Your task to perform on an android device: open app "Pluto TV - Live TV and Movies" (install if not already installed), go to login, and select forgot password Image 0: 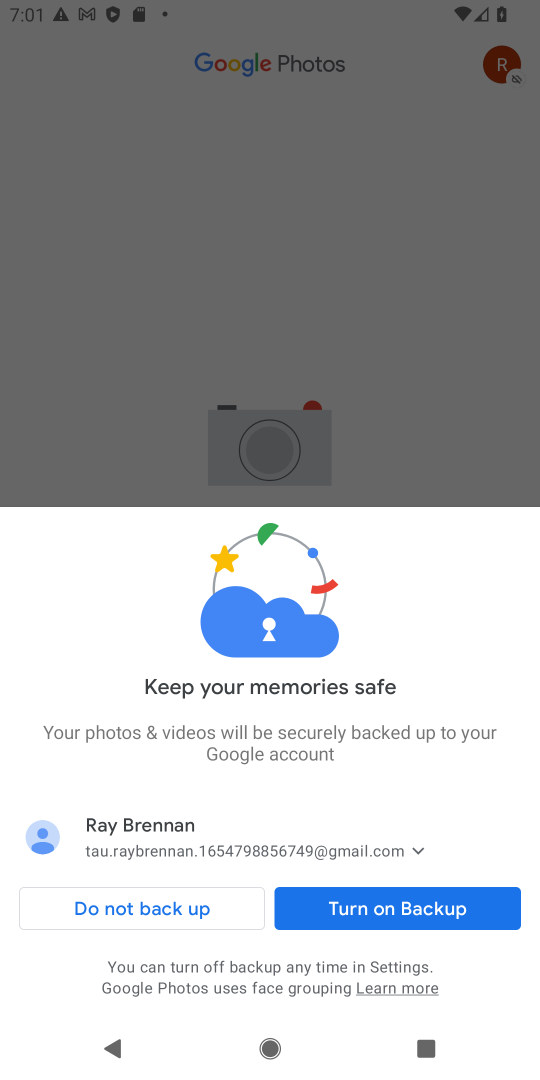
Step 0: press home button
Your task to perform on an android device: open app "Pluto TV - Live TV and Movies" (install if not already installed), go to login, and select forgot password Image 1: 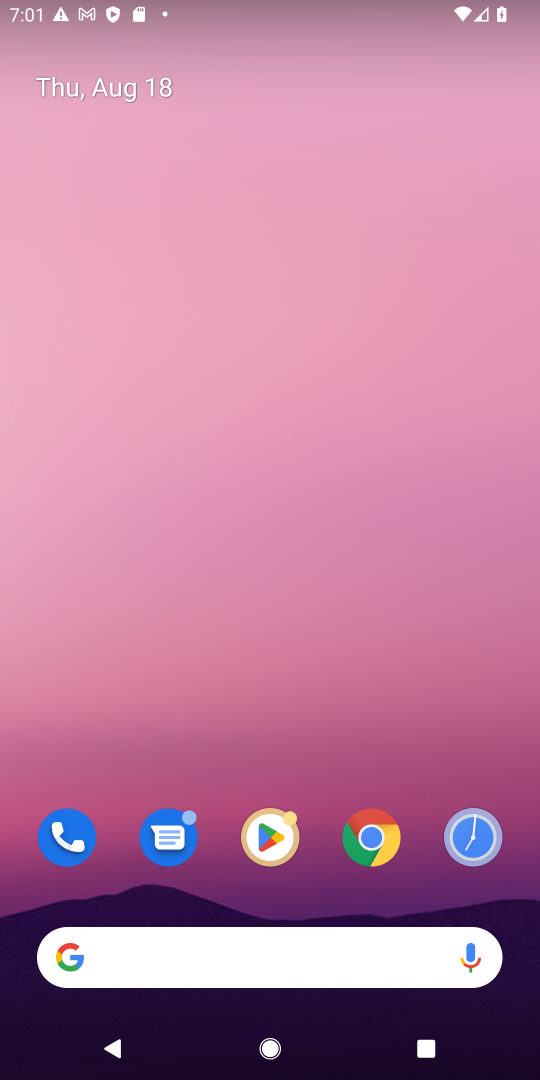
Step 1: click (269, 828)
Your task to perform on an android device: open app "Pluto TV - Live TV and Movies" (install if not already installed), go to login, and select forgot password Image 2: 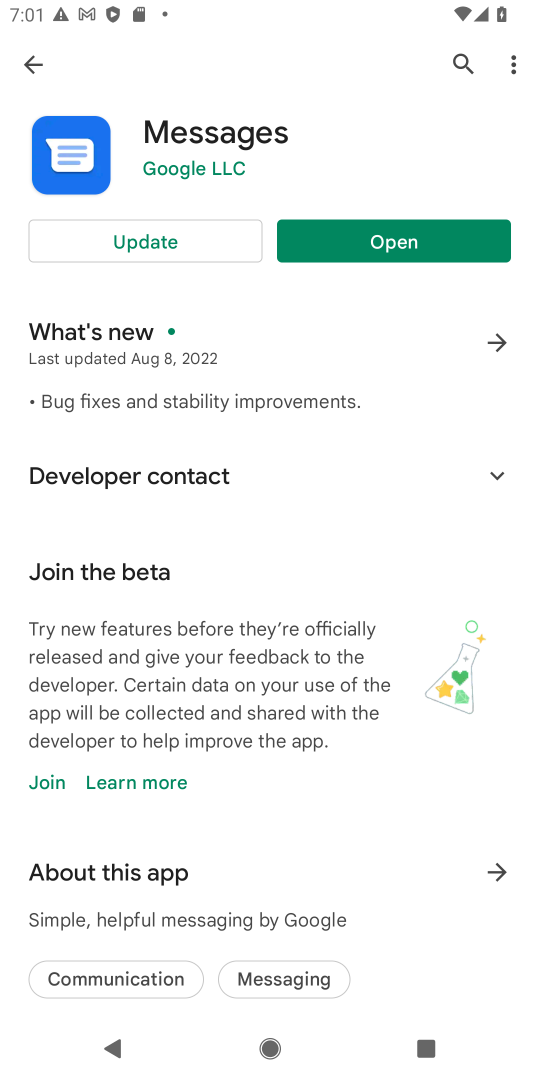
Step 2: click (36, 61)
Your task to perform on an android device: open app "Pluto TV - Live TV and Movies" (install if not already installed), go to login, and select forgot password Image 3: 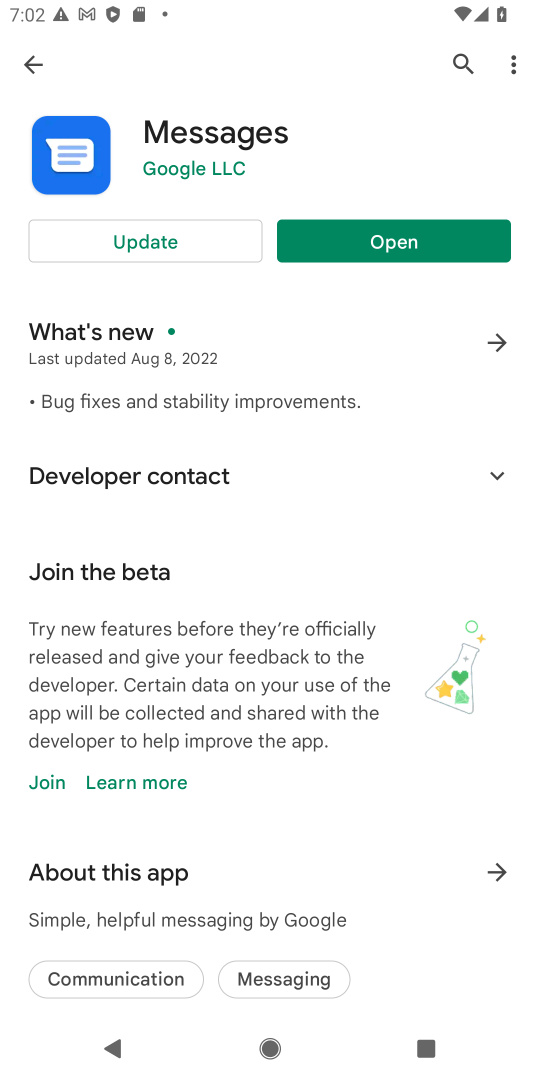
Step 3: click (30, 62)
Your task to perform on an android device: open app "Pluto TV - Live TV and Movies" (install if not already installed), go to login, and select forgot password Image 4: 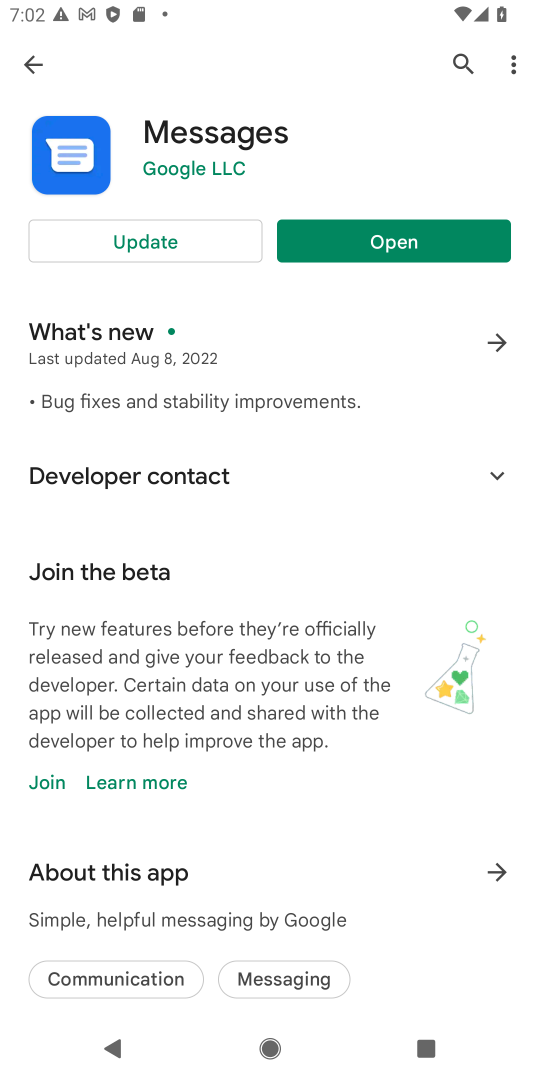
Step 4: click (32, 76)
Your task to perform on an android device: open app "Pluto TV - Live TV and Movies" (install if not already installed), go to login, and select forgot password Image 5: 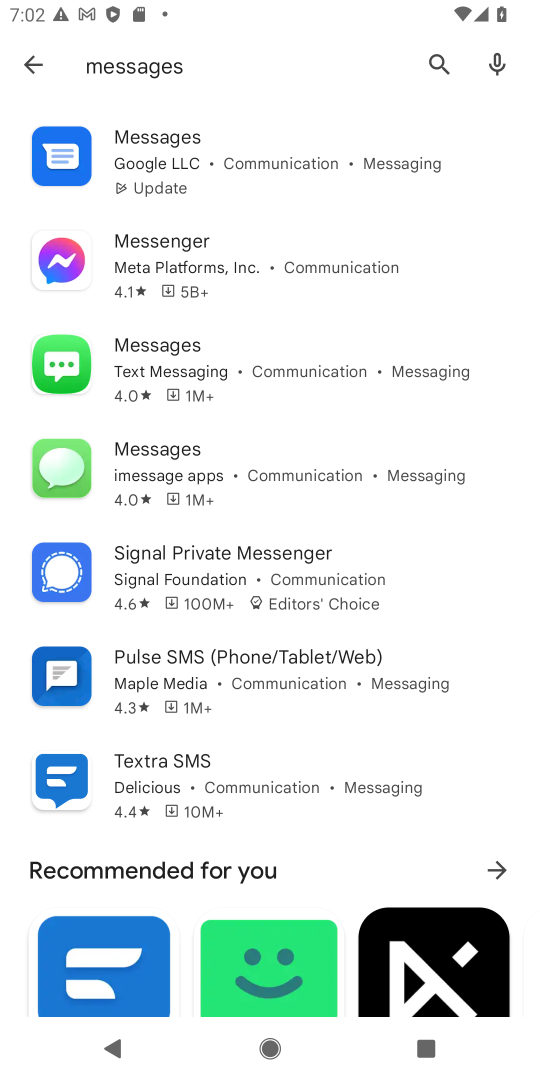
Step 5: click (150, 67)
Your task to perform on an android device: open app "Pluto TV - Live TV and Movies" (install if not already installed), go to login, and select forgot password Image 6: 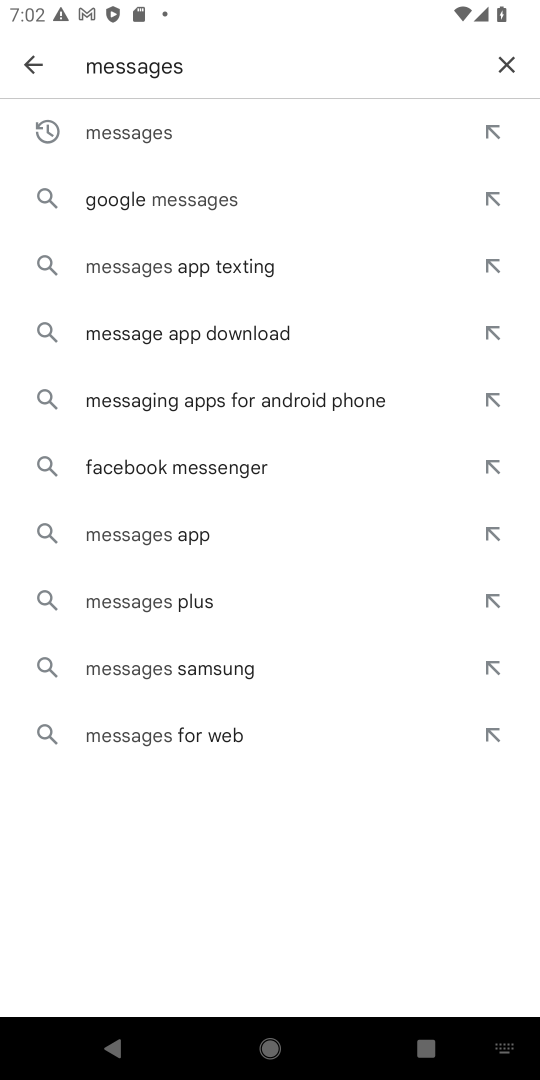
Step 6: click (512, 54)
Your task to perform on an android device: open app "Pluto TV - Live TV and Movies" (install if not already installed), go to login, and select forgot password Image 7: 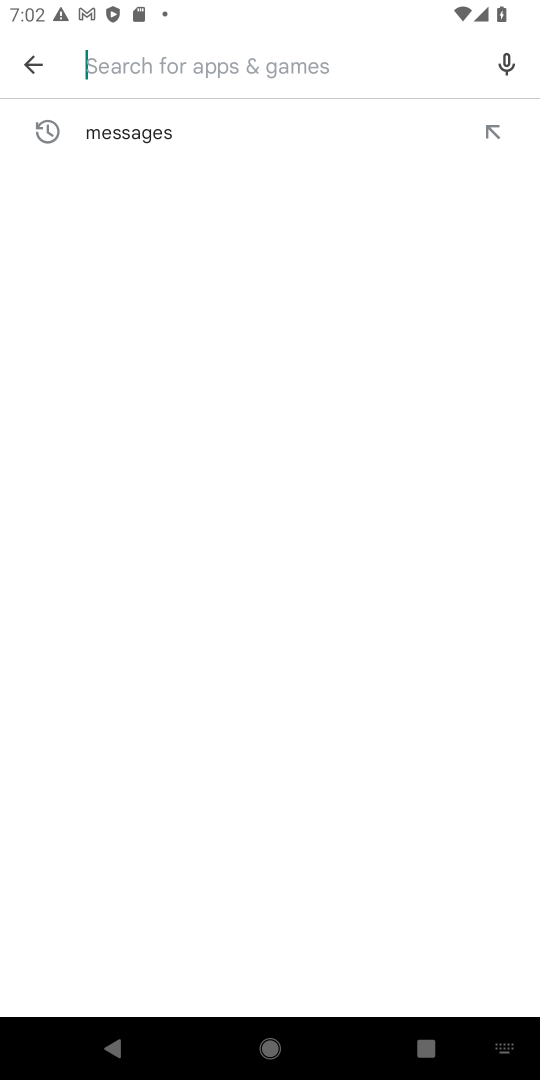
Step 7: type "Pluto TV"
Your task to perform on an android device: open app "Pluto TV - Live TV and Movies" (install if not already installed), go to login, and select forgot password Image 8: 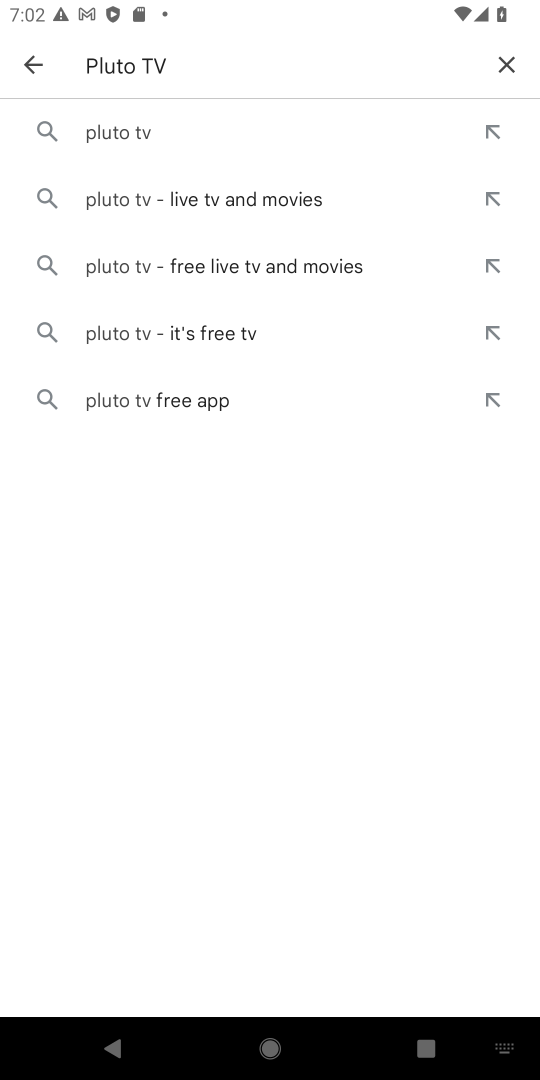
Step 8: click (111, 145)
Your task to perform on an android device: open app "Pluto TV - Live TV and Movies" (install if not already installed), go to login, and select forgot password Image 9: 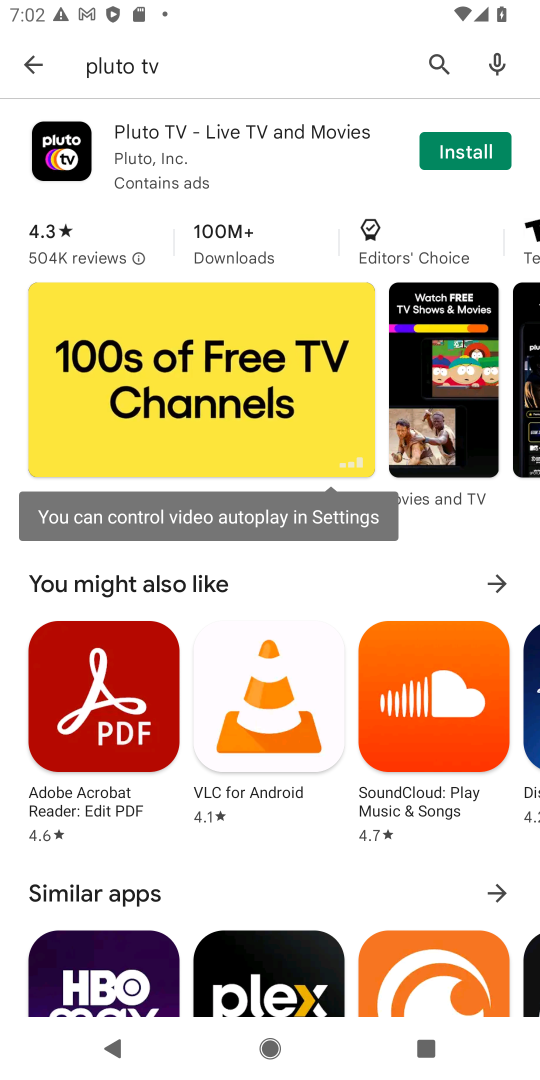
Step 9: click (468, 135)
Your task to perform on an android device: open app "Pluto TV - Live TV and Movies" (install if not already installed), go to login, and select forgot password Image 10: 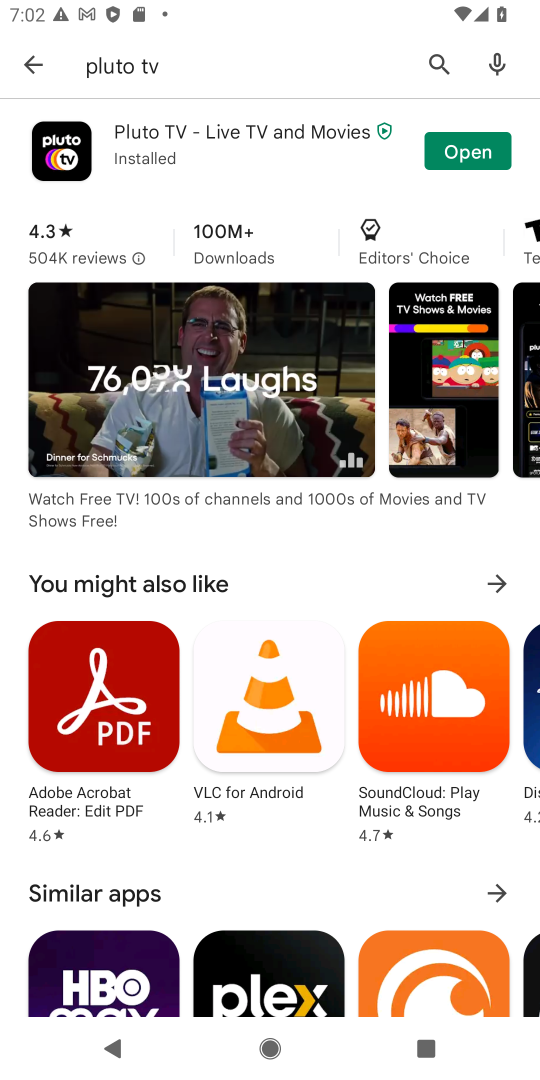
Step 10: click (463, 158)
Your task to perform on an android device: open app "Pluto TV - Live TV and Movies" (install if not already installed), go to login, and select forgot password Image 11: 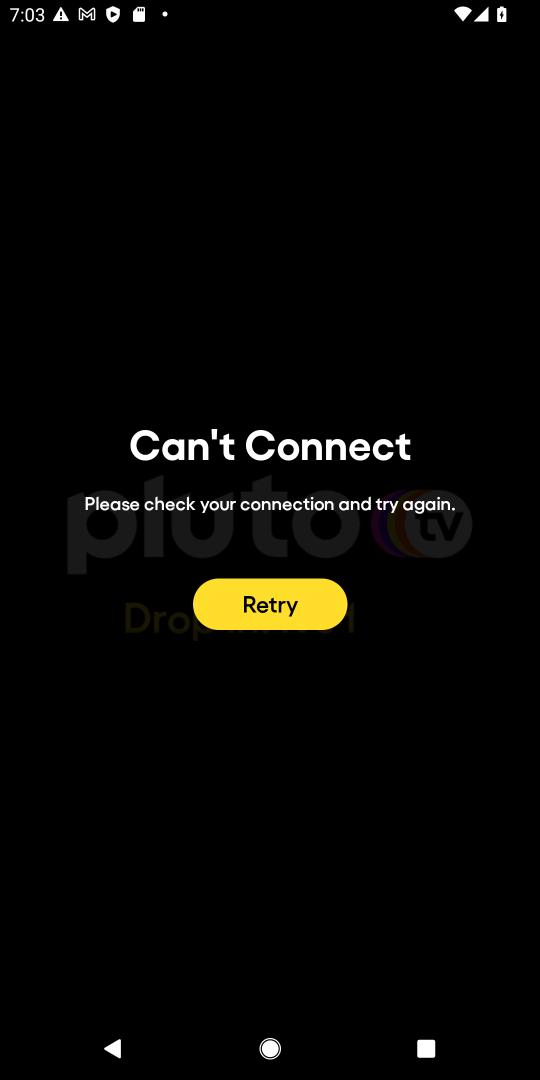
Step 11: click (278, 608)
Your task to perform on an android device: open app "Pluto TV - Live TV and Movies" (install if not already installed), go to login, and select forgot password Image 12: 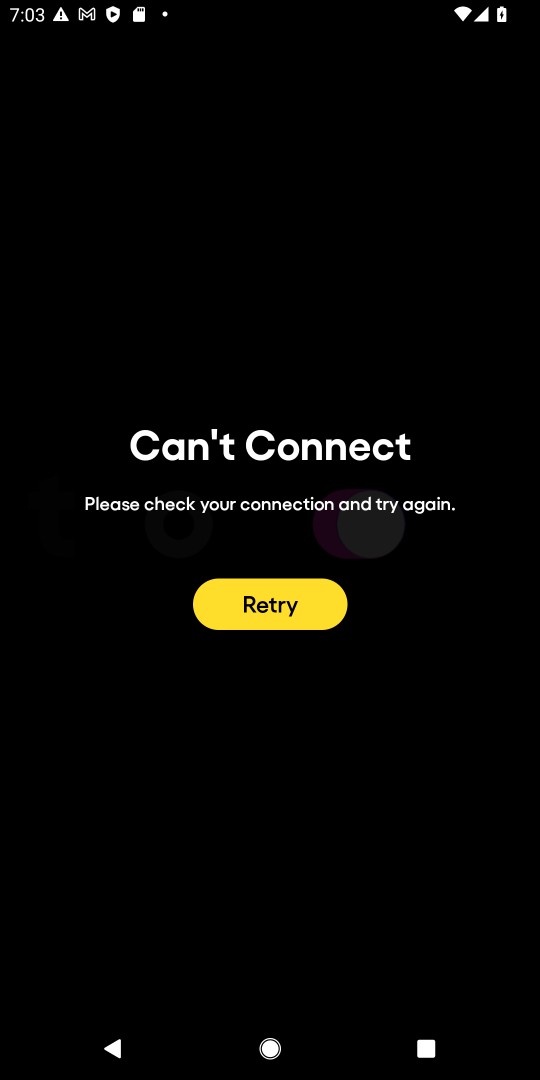
Step 12: click (278, 608)
Your task to perform on an android device: open app "Pluto TV - Live TV and Movies" (install if not already installed), go to login, and select forgot password Image 13: 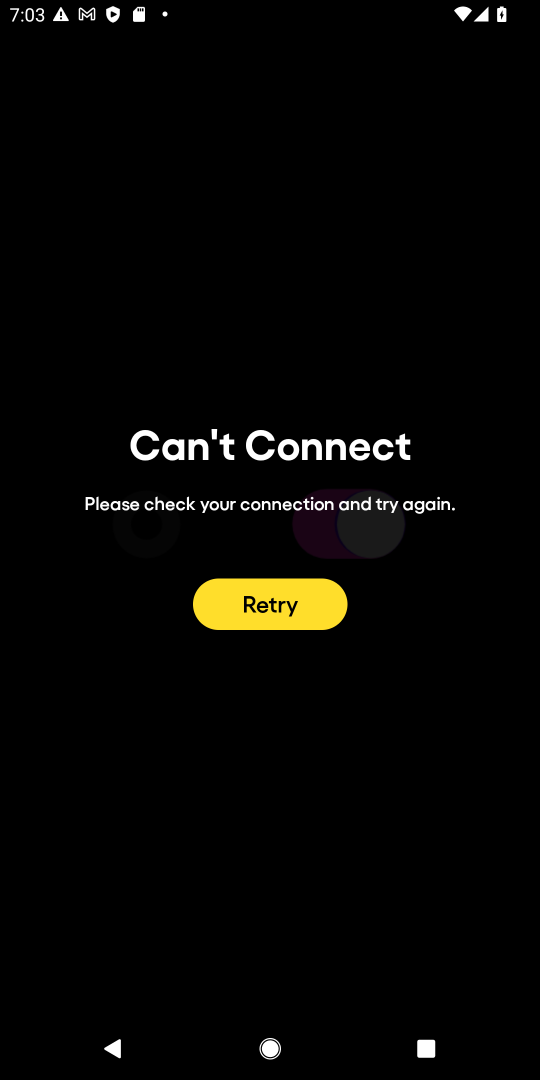
Step 13: task complete